Your task to perform on an android device: Turn off the flashlight Image 0: 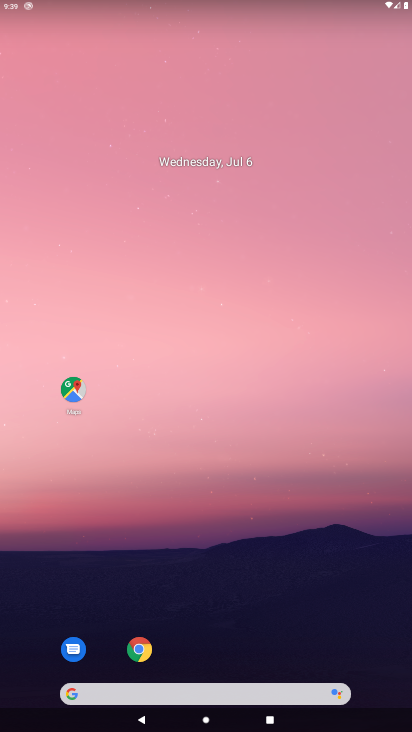
Step 0: drag from (227, 627) to (281, 89)
Your task to perform on an android device: Turn off the flashlight Image 1: 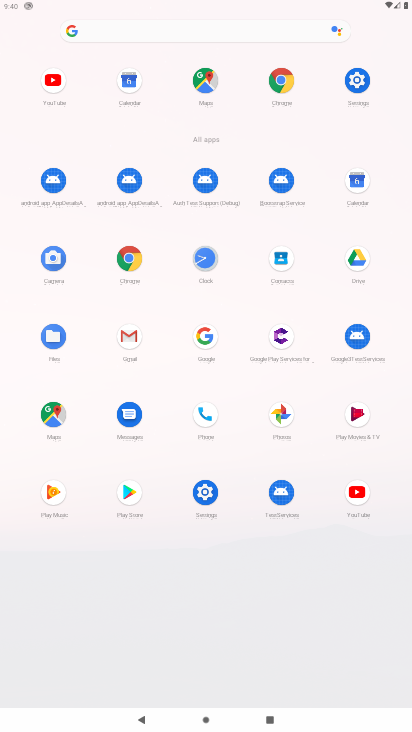
Step 1: click (358, 79)
Your task to perform on an android device: Turn off the flashlight Image 2: 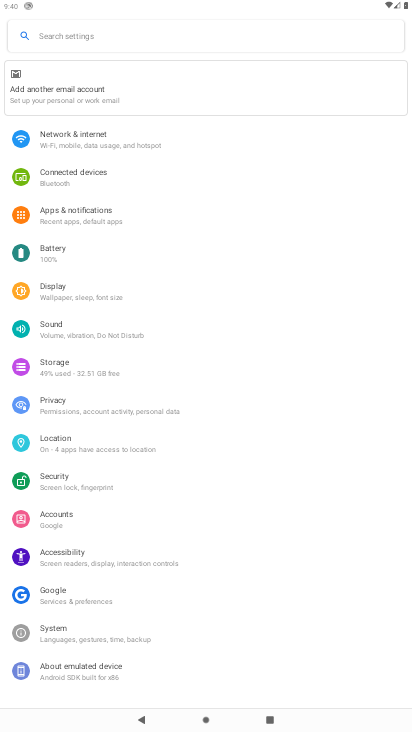
Step 2: click (105, 35)
Your task to perform on an android device: Turn off the flashlight Image 3: 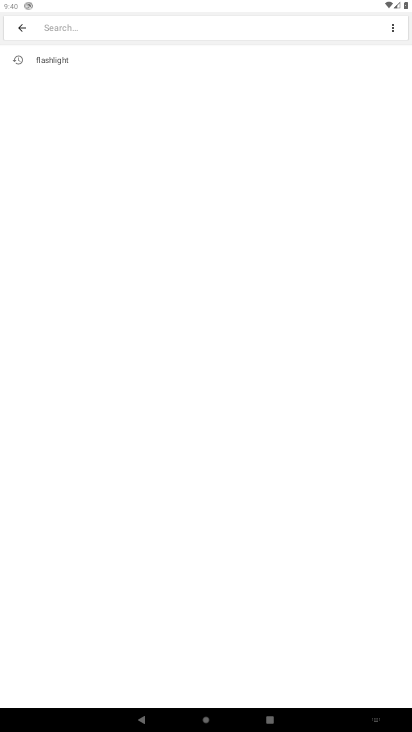
Step 3: click (75, 61)
Your task to perform on an android device: Turn off the flashlight Image 4: 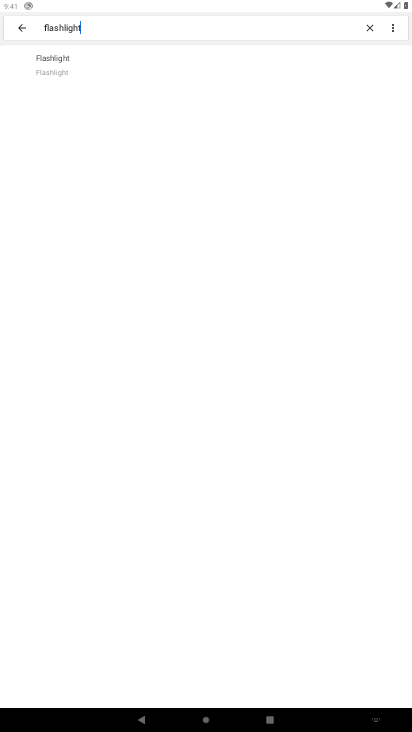
Step 4: click (80, 59)
Your task to perform on an android device: Turn off the flashlight Image 5: 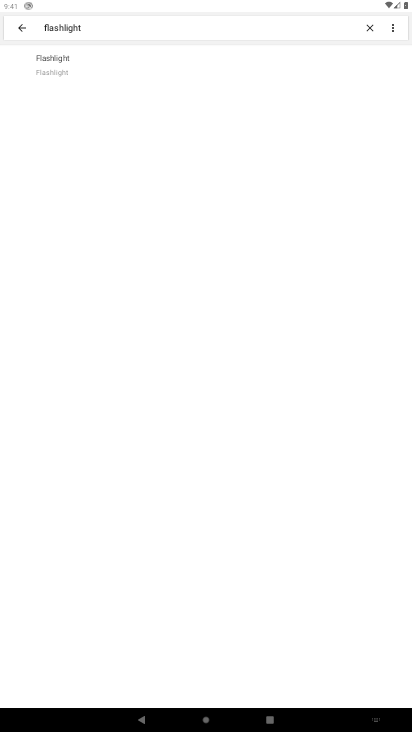
Step 5: task complete